Your task to perform on an android device: turn off airplane mode Image 0: 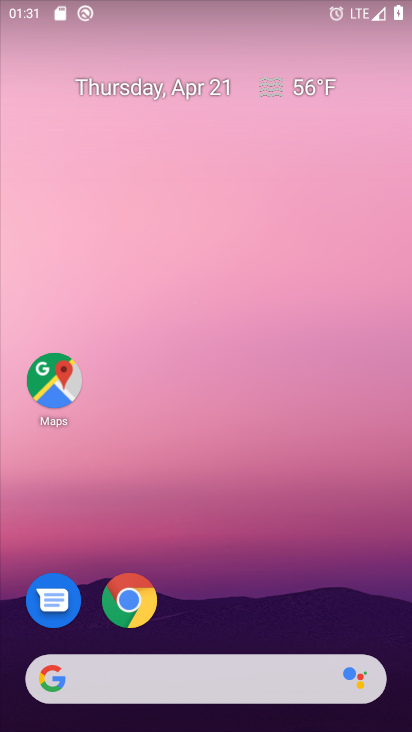
Step 0: drag from (278, 587) to (335, 112)
Your task to perform on an android device: turn off airplane mode Image 1: 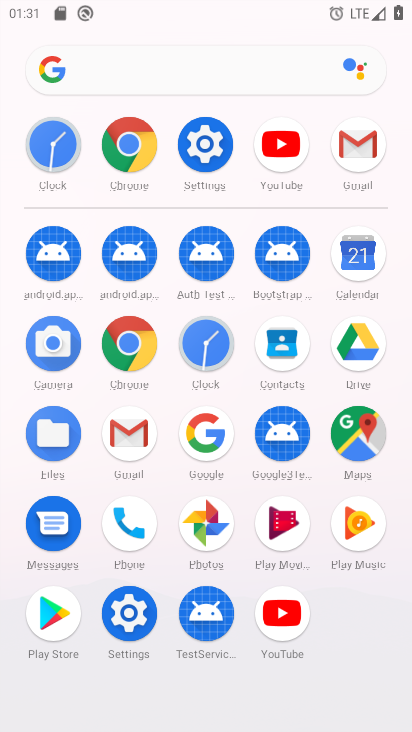
Step 1: click (212, 140)
Your task to perform on an android device: turn off airplane mode Image 2: 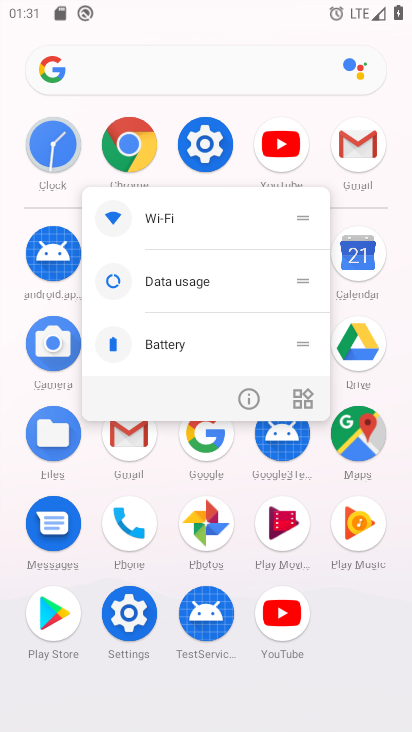
Step 2: click (212, 140)
Your task to perform on an android device: turn off airplane mode Image 3: 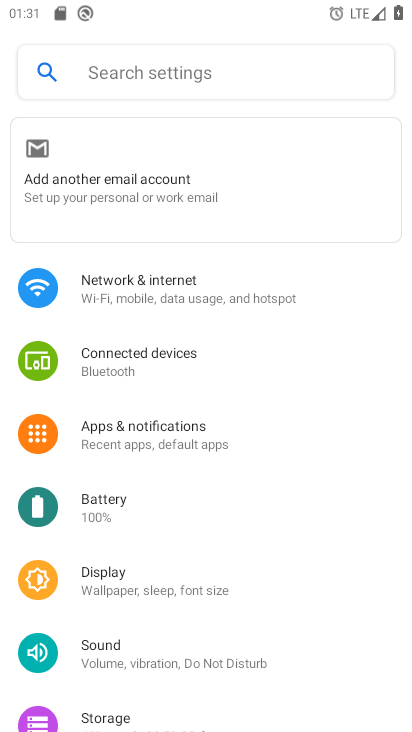
Step 3: click (210, 281)
Your task to perform on an android device: turn off airplane mode Image 4: 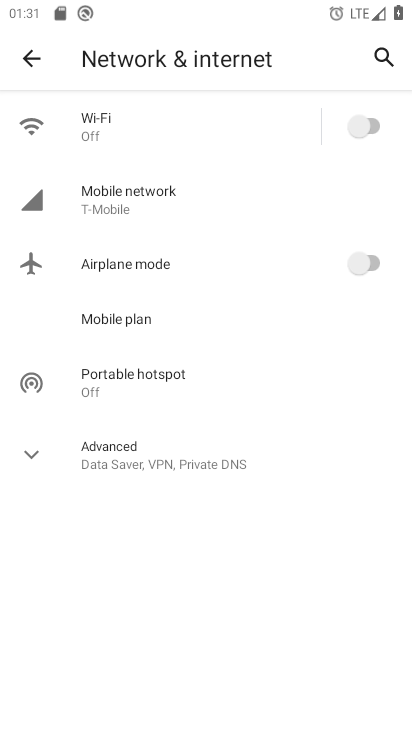
Step 4: task complete